Your task to perform on an android device: Open accessibility settings Image 0: 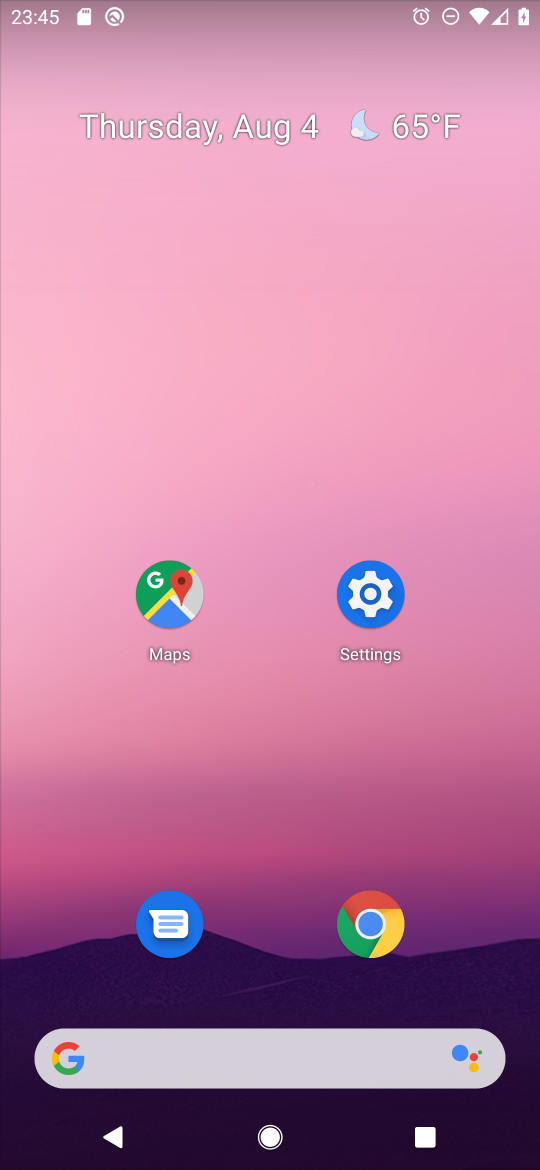
Step 0: press home button
Your task to perform on an android device: Open accessibility settings Image 1: 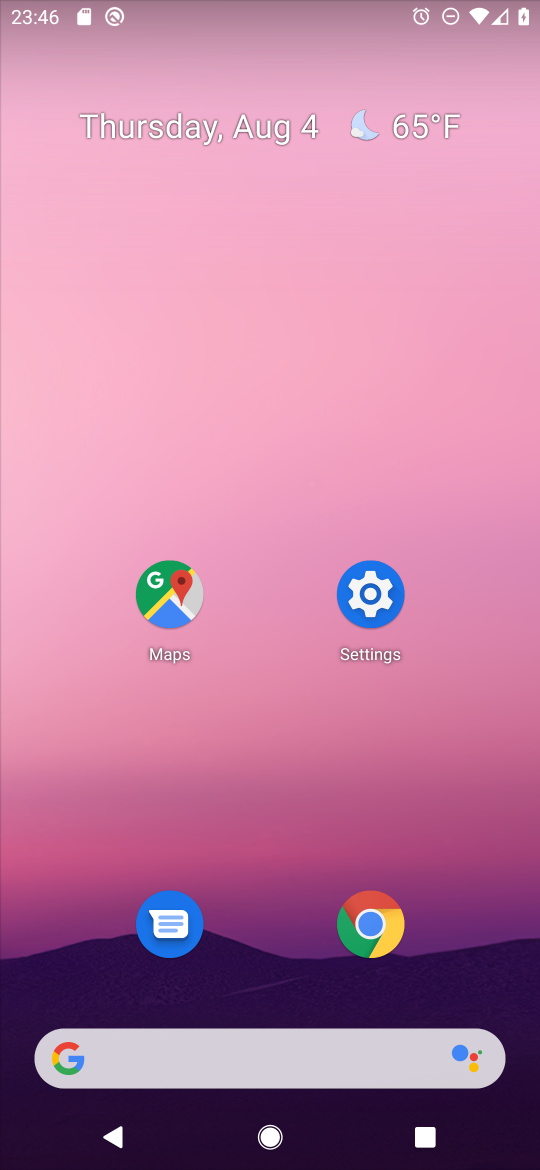
Step 1: click (371, 594)
Your task to perform on an android device: Open accessibility settings Image 2: 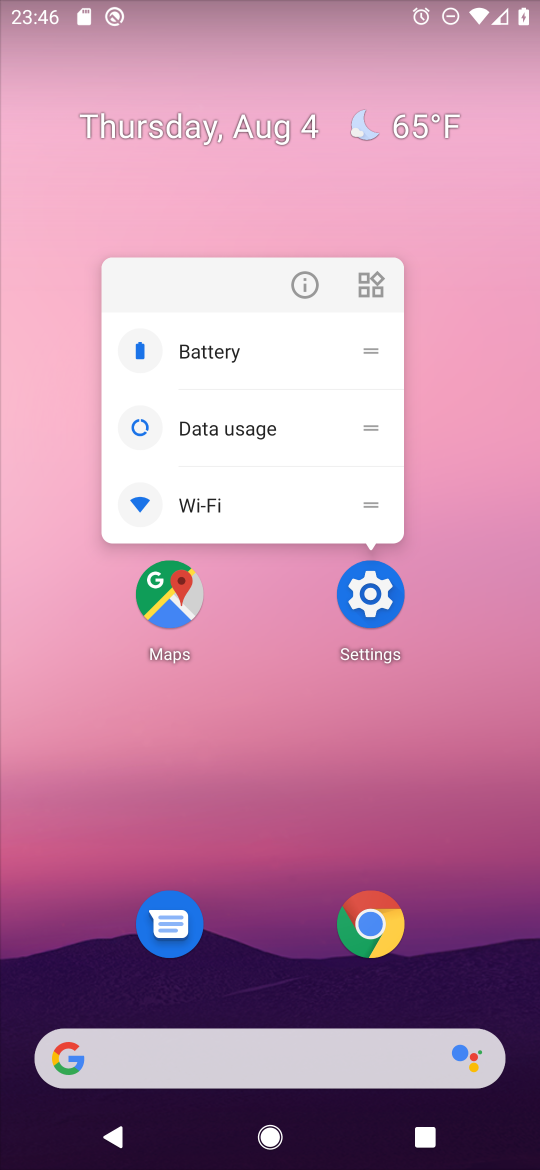
Step 2: click (371, 597)
Your task to perform on an android device: Open accessibility settings Image 3: 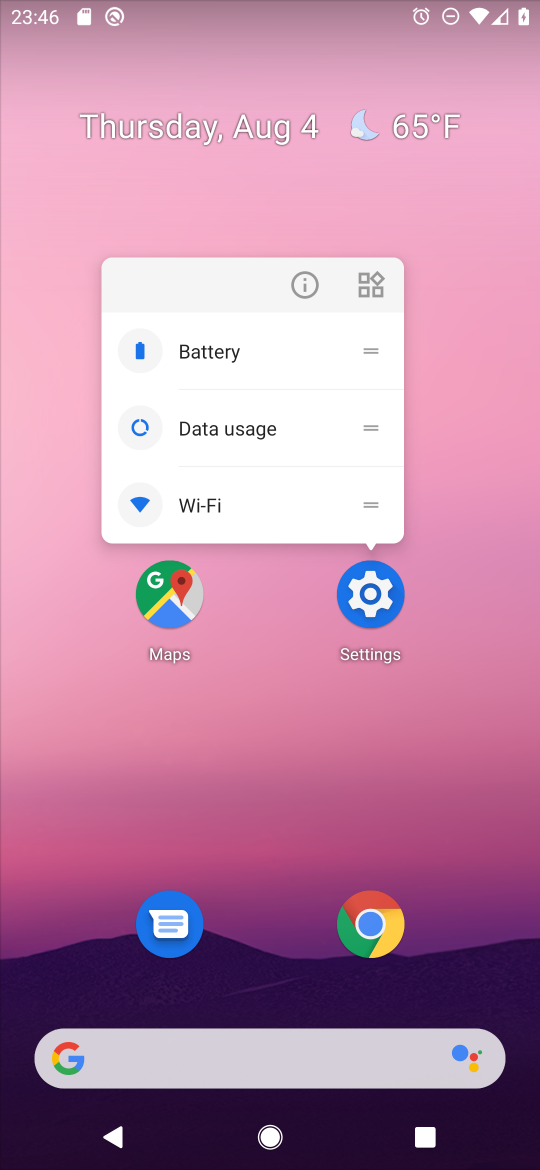
Step 3: click (371, 597)
Your task to perform on an android device: Open accessibility settings Image 4: 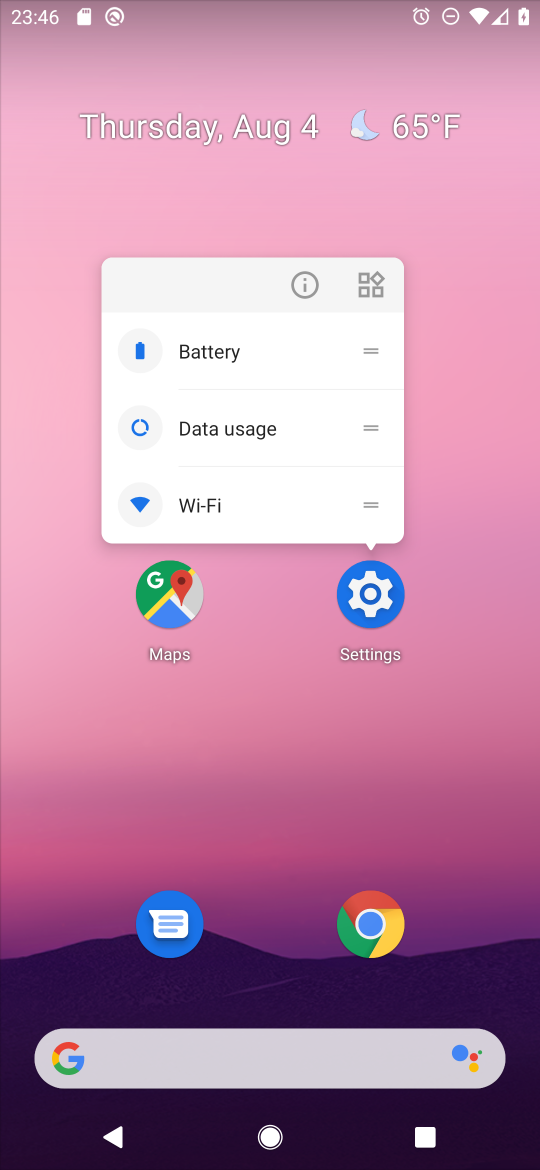
Step 4: click (371, 600)
Your task to perform on an android device: Open accessibility settings Image 5: 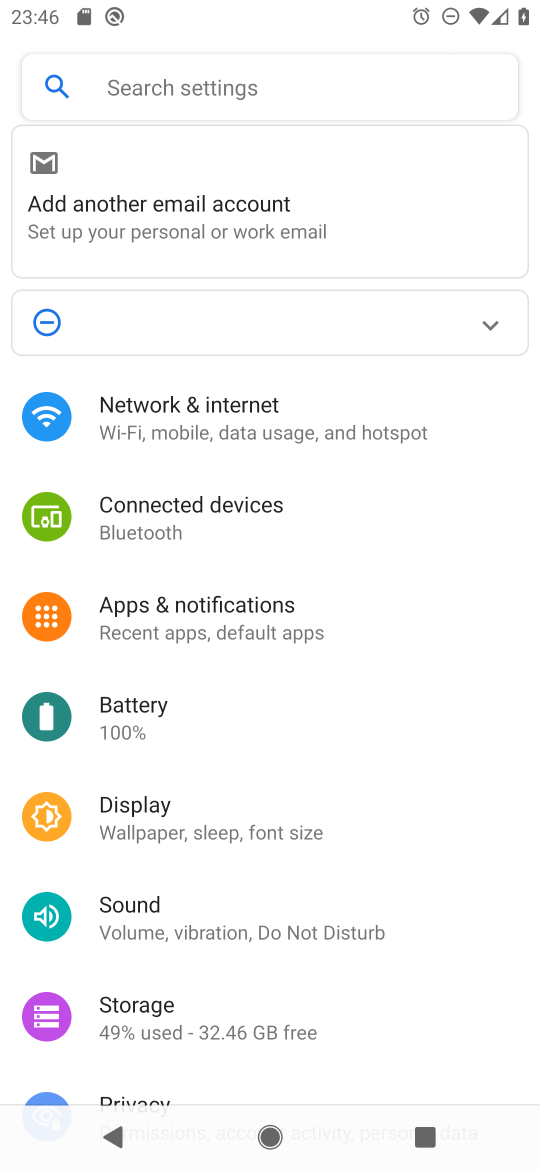
Step 5: drag from (339, 1031) to (520, 315)
Your task to perform on an android device: Open accessibility settings Image 6: 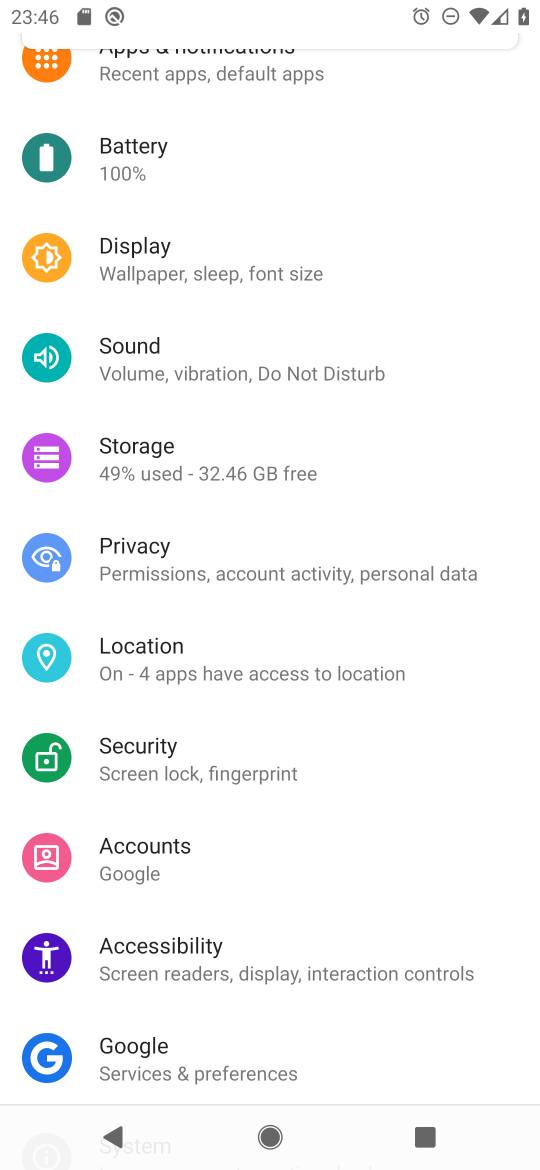
Step 6: click (172, 953)
Your task to perform on an android device: Open accessibility settings Image 7: 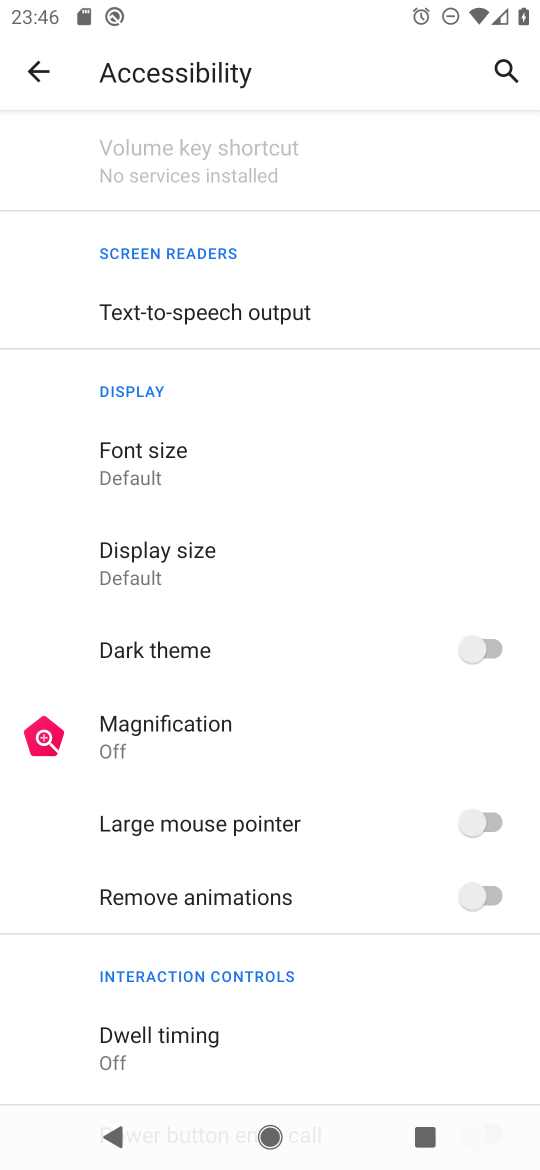
Step 7: task complete